Your task to perform on an android device: change the clock display to digital Image 0: 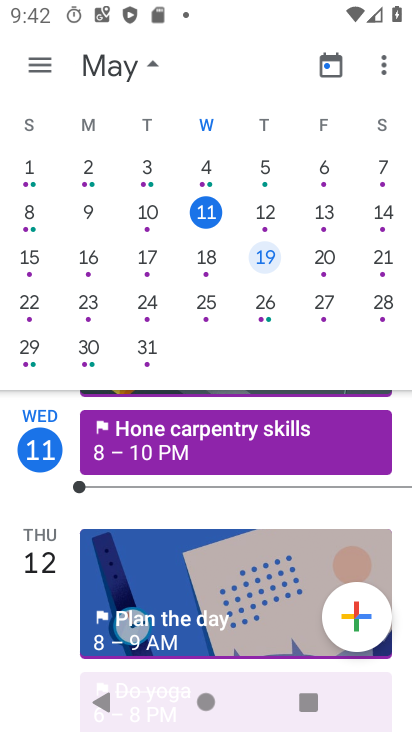
Step 0: press home button
Your task to perform on an android device: change the clock display to digital Image 1: 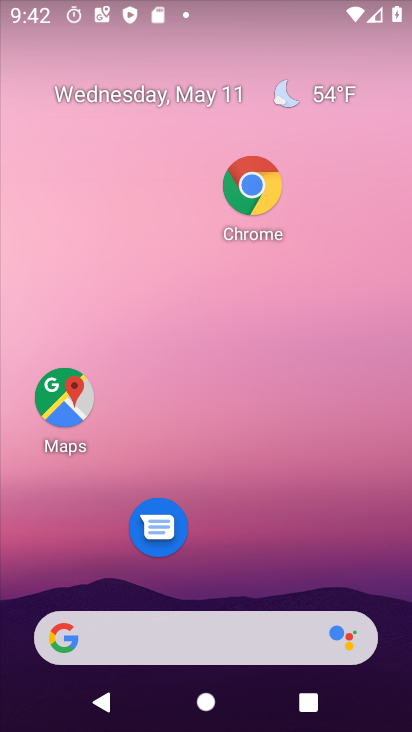
Step 1: drag from (230, 556) to (233, 60)
Your task to perform on an android device: change the clock display to digital Image 2: 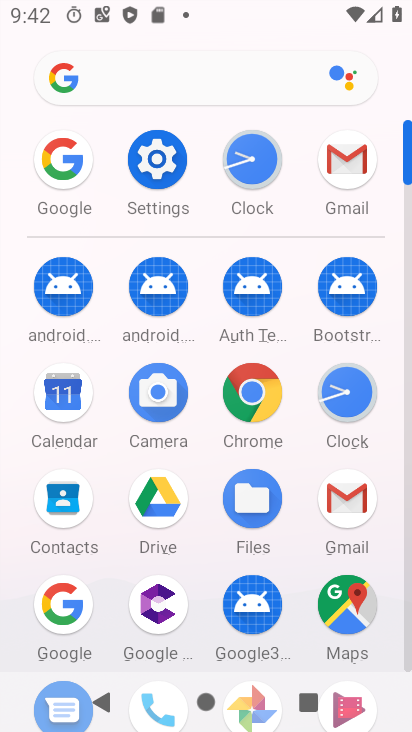
Step 2: click (252, 172)
Your task to perform on an android device: change the clock display to digital Image 3: 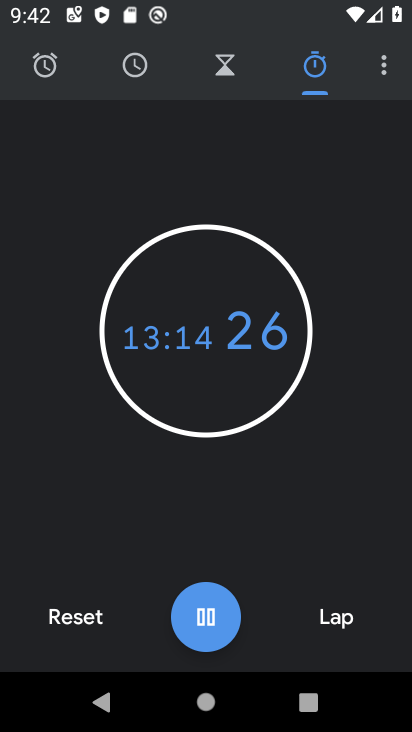
Step 3: click (374, 60)
Your task to perform on an android device: change the clock display to digital Image 4: 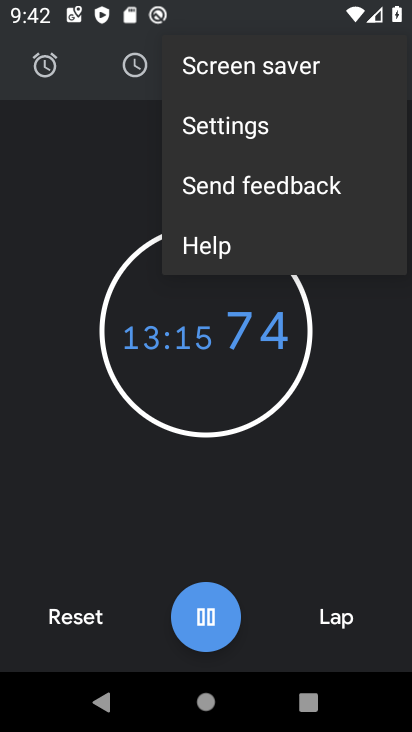
Step 4: click (259, 124)
Your task to perform on an android device: change the clock display to digital Image 5: 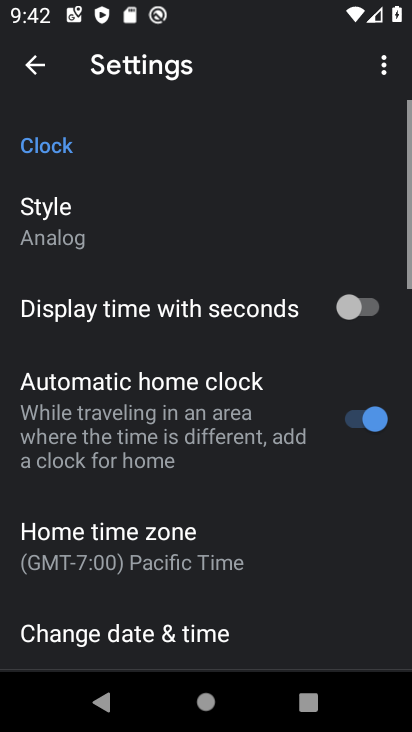
Step 5: click (104, 218)
Your task to perform on an android device: change the clock display to digital Image 6: 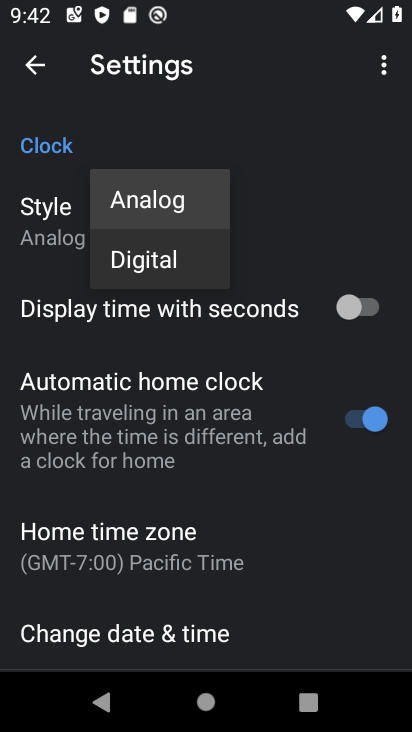
Step 6: click (169, 258)
Your task to perform on an android device: change the clock display to digital Image 7: 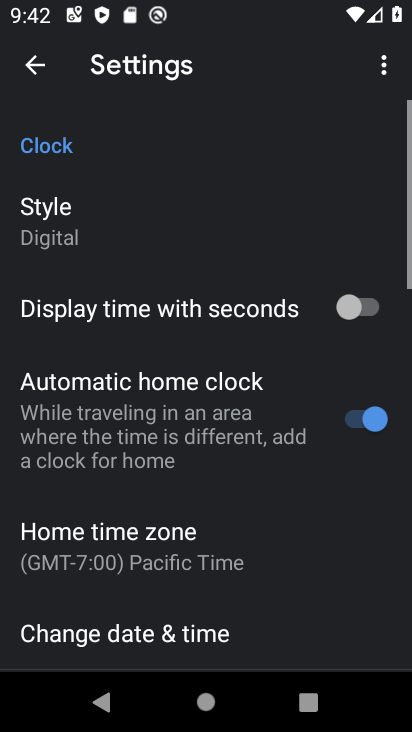
Step 7: task complete